Your task to perform on an android device: Open calendar and show me the second week of next month Image 0: 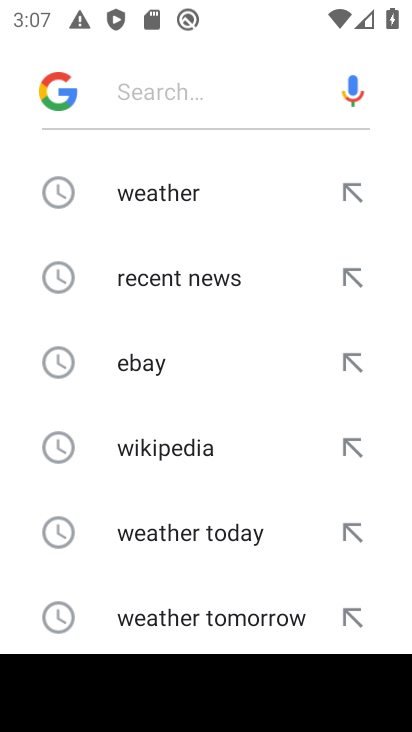
Step 0: press home button
Your task to perform on an android device: Open calendar and show me the second week of next month Image 1: 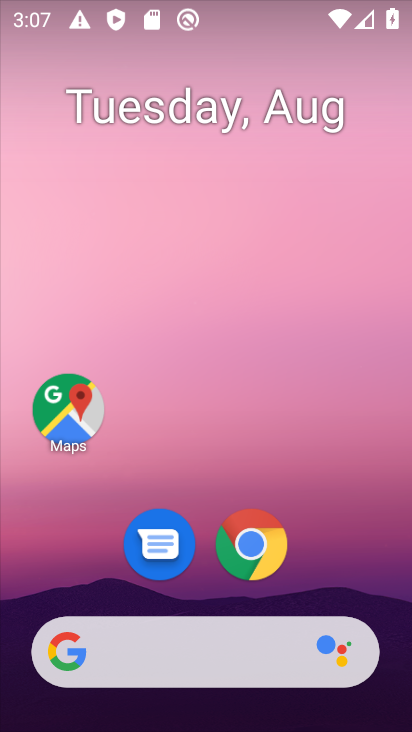
Step 1: drag from (370, 504) to (231, 25)
Your task to perform on an android device: Open calendar and show me the second week of next month Image 2: 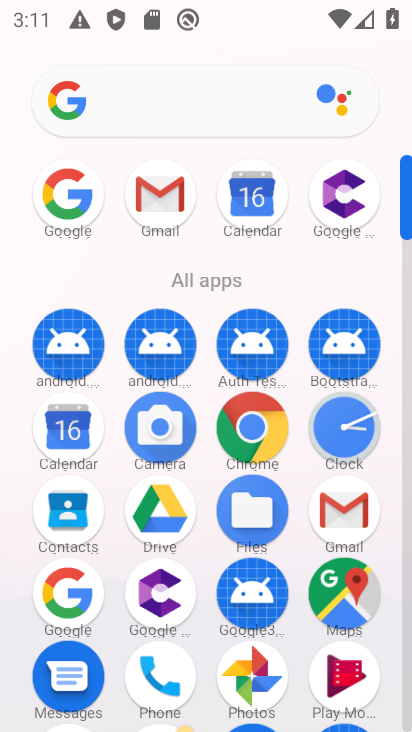
Step 2: click (55, 425)
Your task to perform on an android device: Open calendar and show me the second week of next month Image 3: 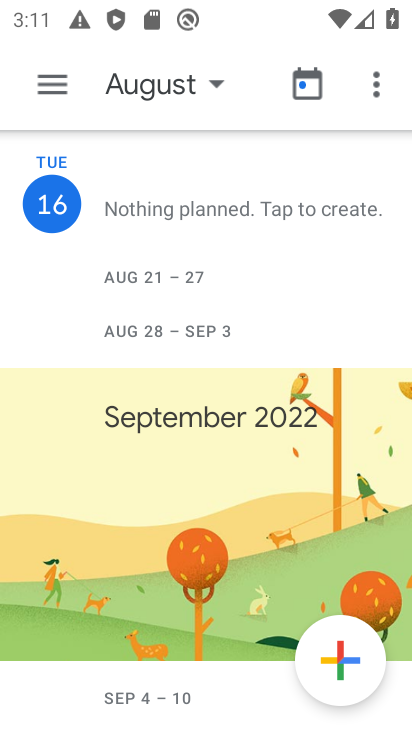
Step 3: click (150, 94)
Your task to perform on an android device: Open calendar and show me the second week of next month Image 4: 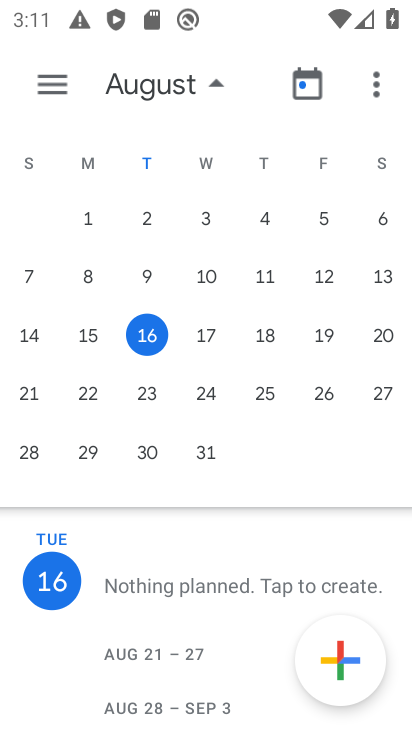
Step 4: drag from (390, 288) to (14, 350)
Your task to perform on an android device: Open calendar and show me the second week of next month Image 5: 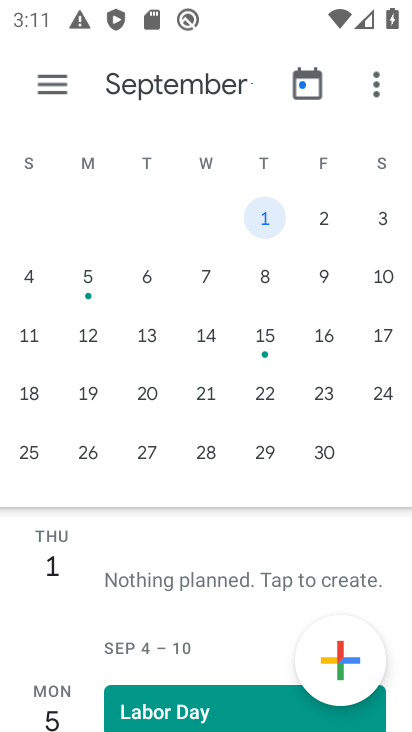
Step 5: click (27, 333)
Your task to perform on an android device: Open calendar and show me the second week of next month Image 6: 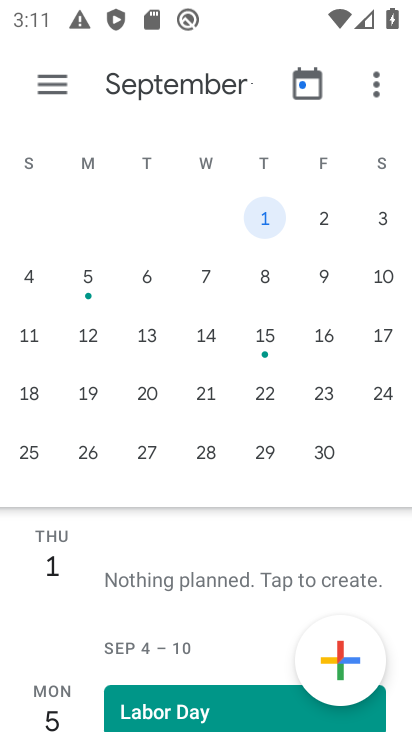
Step 6: click (27, 333)
Your task to perform on an android device: Open calendar and show me the second week of next month Image 7: 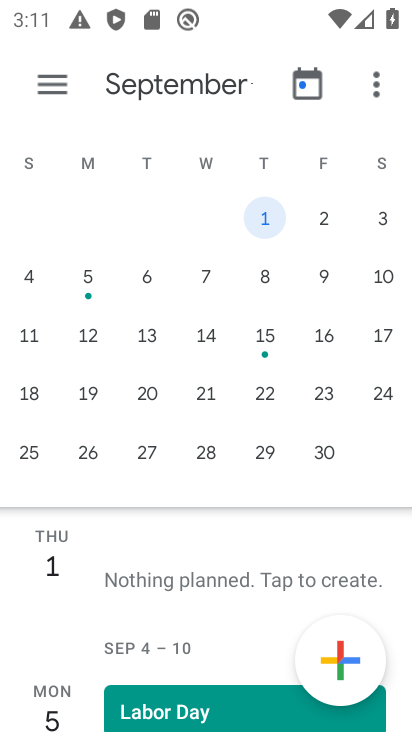
Step 7: task complete